Your task to perform on an android device: toggle data saver in the chrome app Image 0: 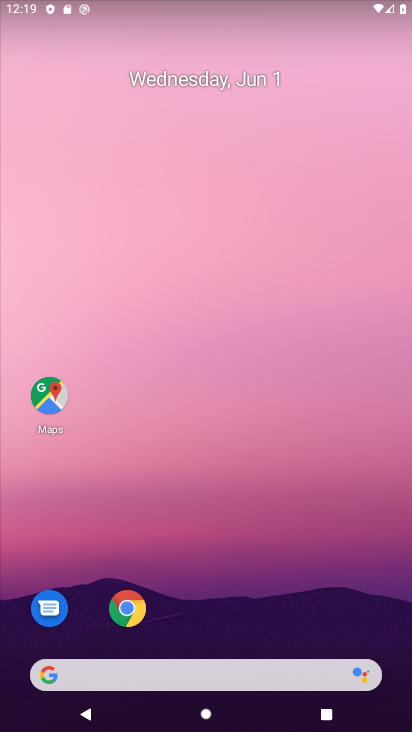
Step 0: click (134, 628)
Your task to perform on an android device: toggle data saver in the chrome app Image 1: 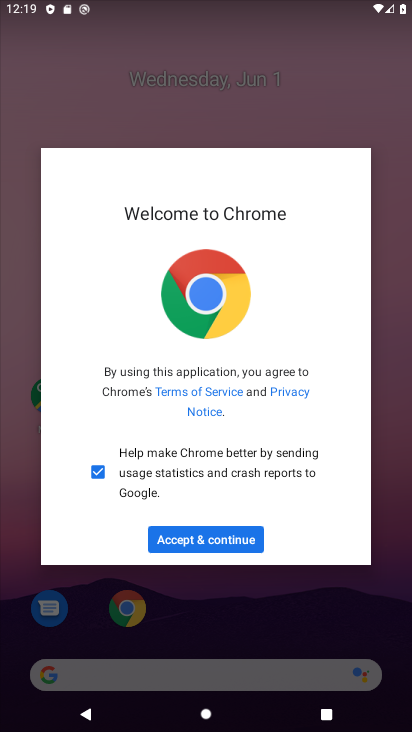
Step 1: click (129, 616)
Your task to perform on an android device: toggle data saver in the chrome app Image 2: 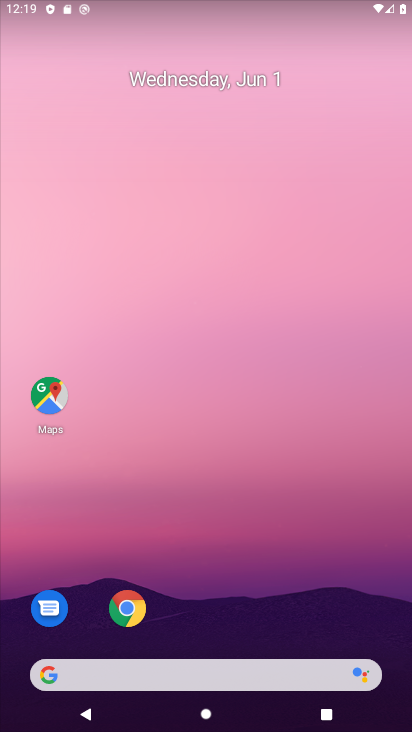
Step 2: click (139, 603)
Your task to perform on an android device: toggle data saver in the chrome app Image 3: 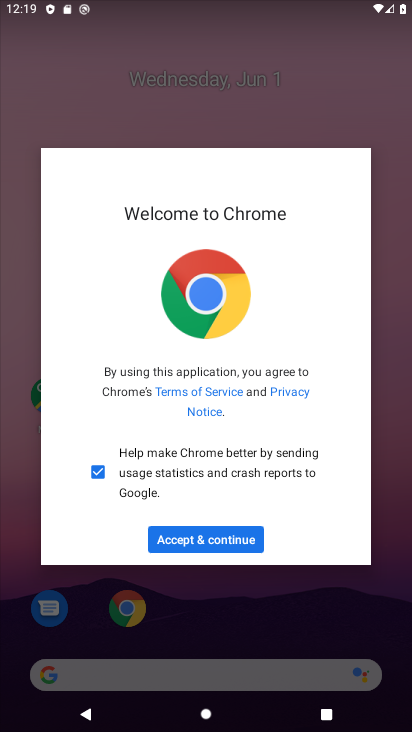
Step 3: click (201, 539)
Your task to perform on an android device: toggle data saver in the chrome app Image 4: 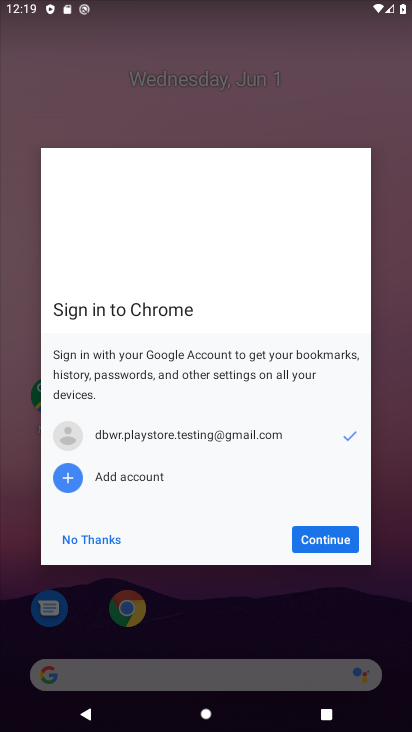
Step 4: click (332, 527)
Your task to perform on an android device: toggle data saver in the chrome app Image 5: 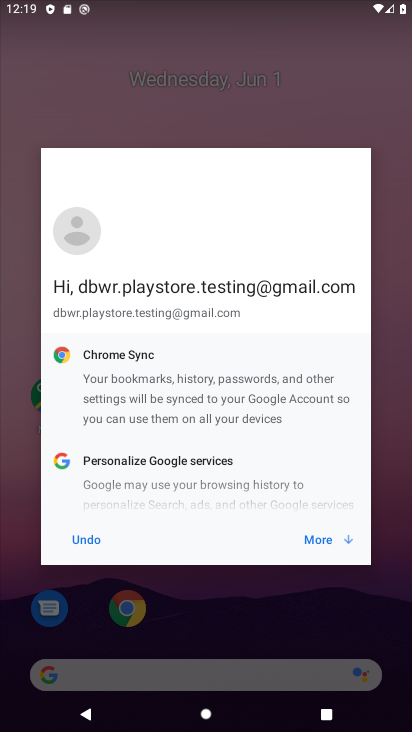
Step 5: click (329, 544)
Your task to perform on an android device: toggle data saver in the chrome app Image 6: 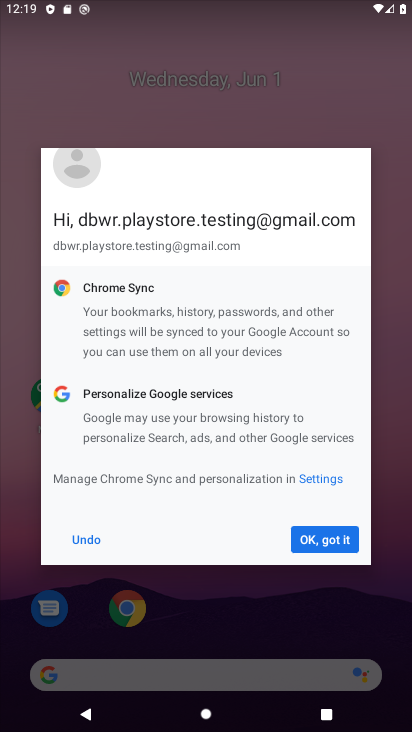
Step 6: click (329, 544)
Your task to perform on an android device: toggle data saver in the chrome app Image 7: 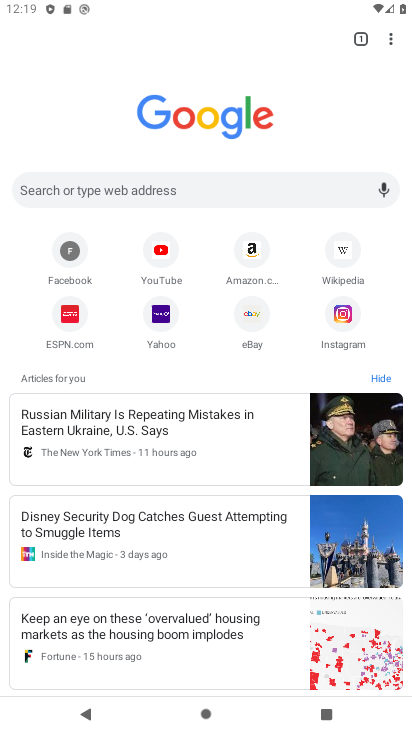
Step 7: click (394, 37)
Your task to perform on an android device: toggle data saver in the chrome app Image 8: 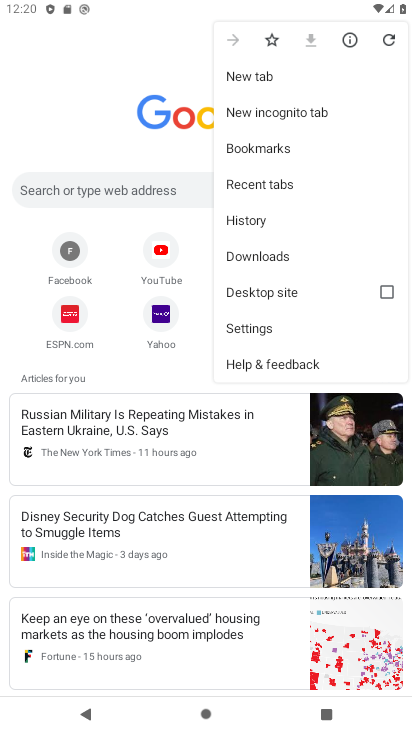
Step 8: click (269, 330)
Your task to perform on an android device: toggle data saver in the chrome app Image 9: 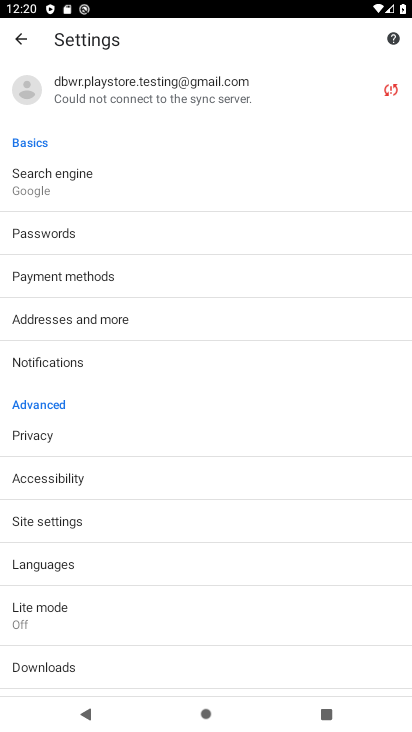
Step 9: click (35, 608)
Your task to perform on an android device: toggle data saver in the chrome app Image 10: 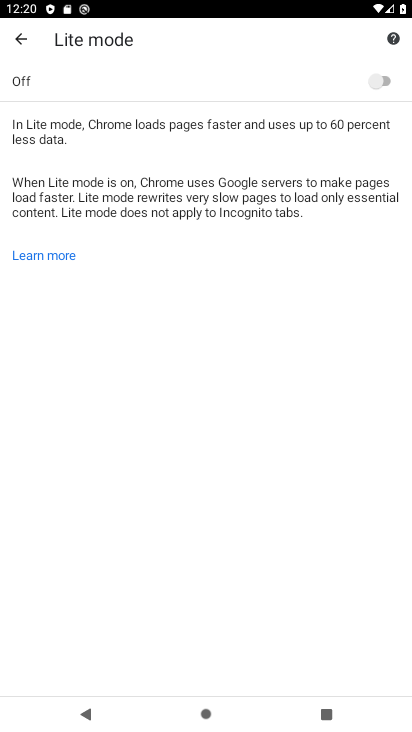
Step 10: click (379, 78)
Your task to perform on an android device: toggle data saver in the chrome app Image 11: 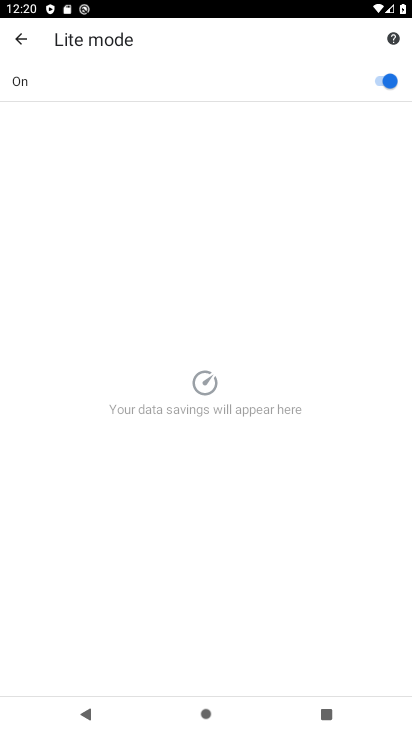
Step 11: task complete